Your task to perform on an android device: Is it going to rain today? Image 0: 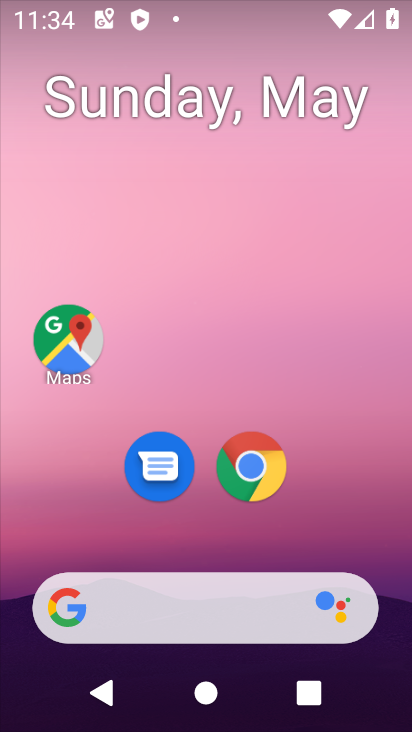
Step 0: drag from (333, 170) to (264, 39)
Your task to perform on an android device: Is it going to rain today? Image 1: 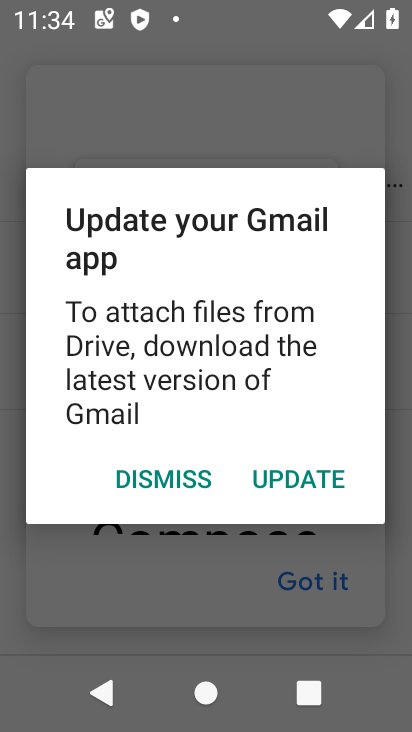
Step 1: drag from (393, 618) to (412, 411)
Your task to perform on an android device: Is it going to rain today? Image 2: 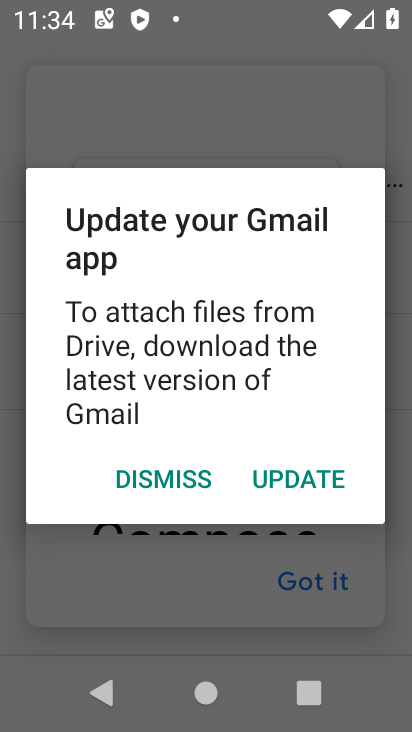
Step 2: press home button
Your task to perform on an android device: Is it going to rain today? Image 3: 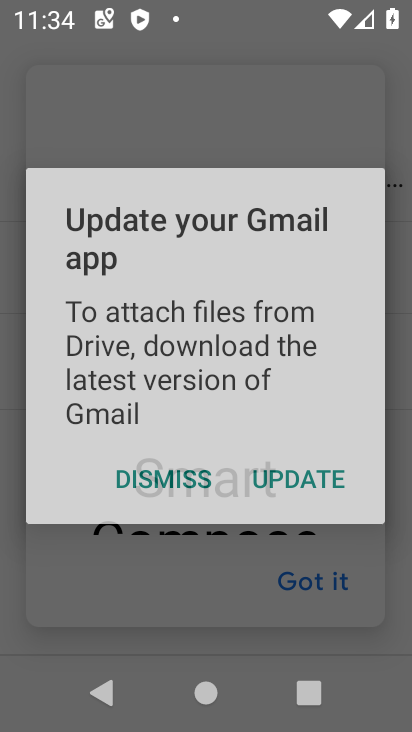
Step 3: drag from (412, 411) to (409, 664)
Your task to perform on an android device: Is it going to rain today? Image 4: 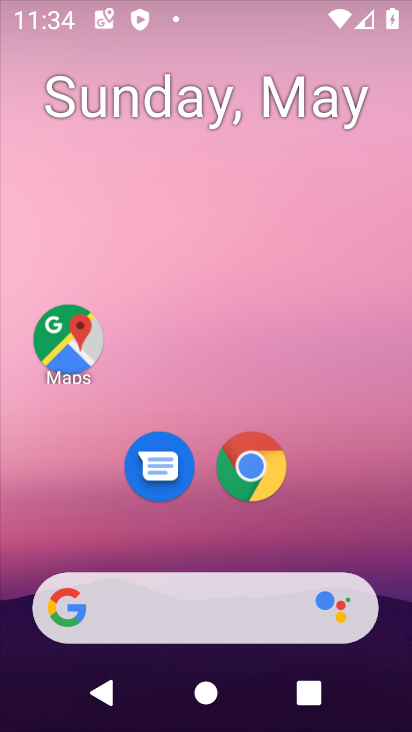
Step 4: drag from (398, 634) to (310, 12)
Your task to perform on an android device: Is it going to rain today? Image 5: 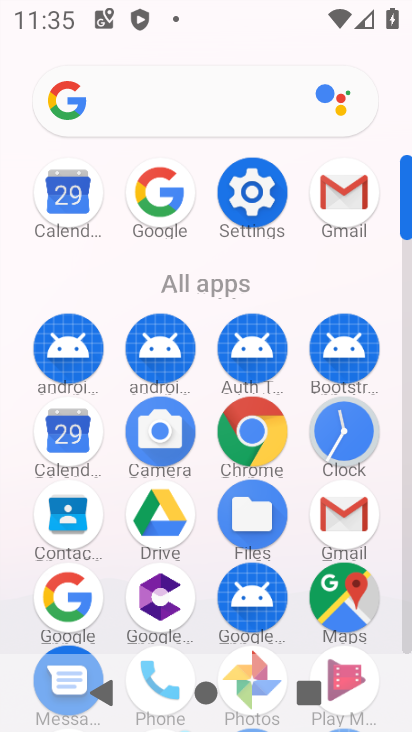
Step 5: click (98, 595)
Your task to perform on an android device: Is it going to rain today? Image 6: 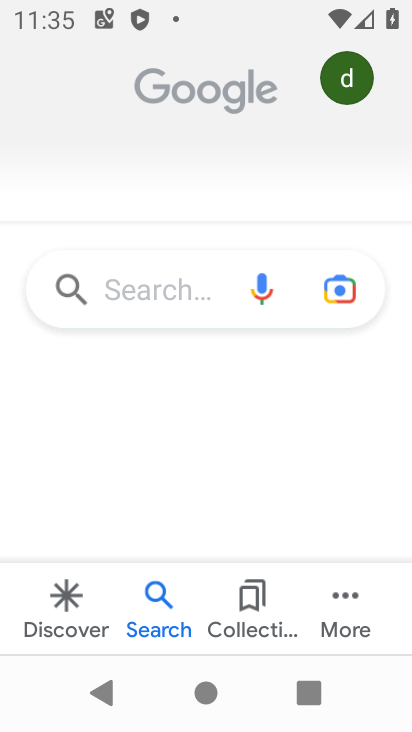
Step 6: click (187, 95)
Your task to perform on an android device: Is it going to rain today? Image 7: 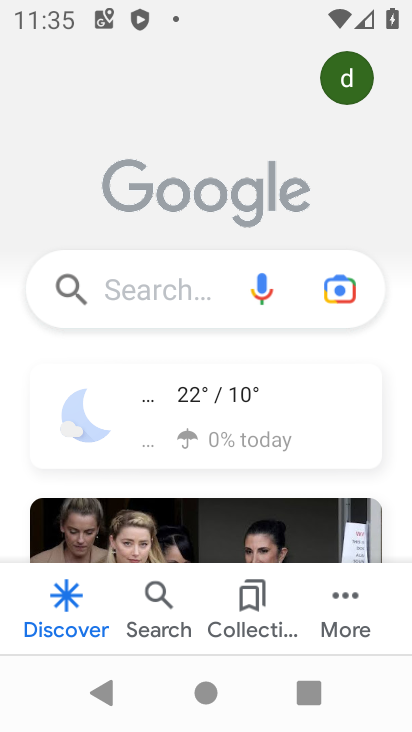
Step 7: click (198, 254)
Your task to perform on an android device: Is it going to rain today? Image 8: 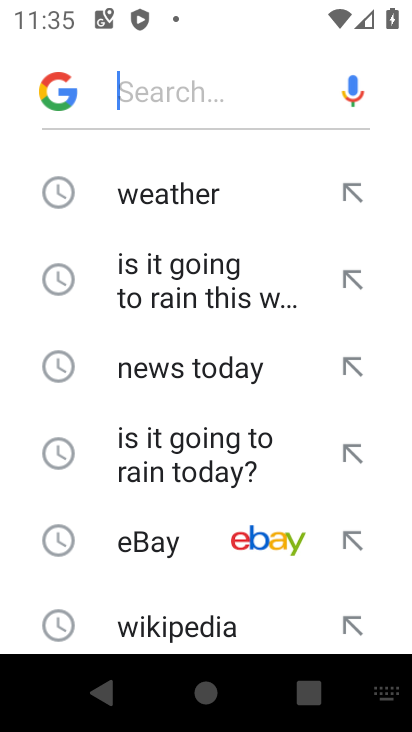
Step 8: click (203, 461)
Your task to perform on an android device: Is it going to rain today? Image 9: 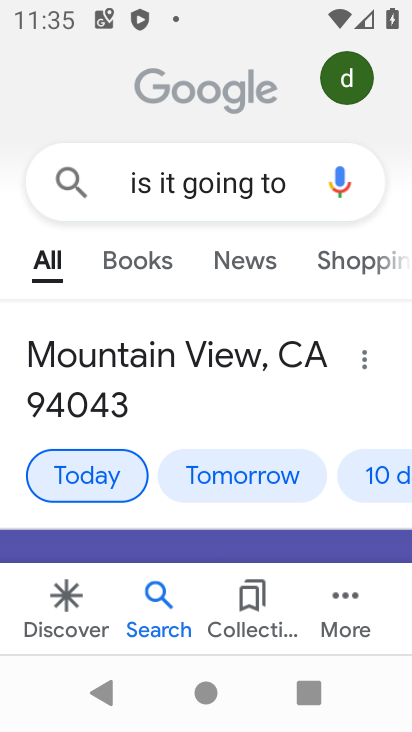
Step 9: task complete